Your task to perform on an android device: open a new tab in the chrome app Image 0: 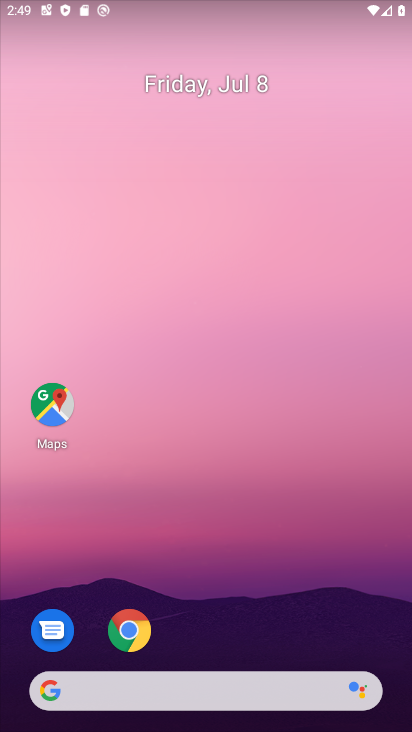
Step 0: drag from (281, 643) to (129, 69)
Your task to perform on an android device: open a new tab in the chrome app Image 1: 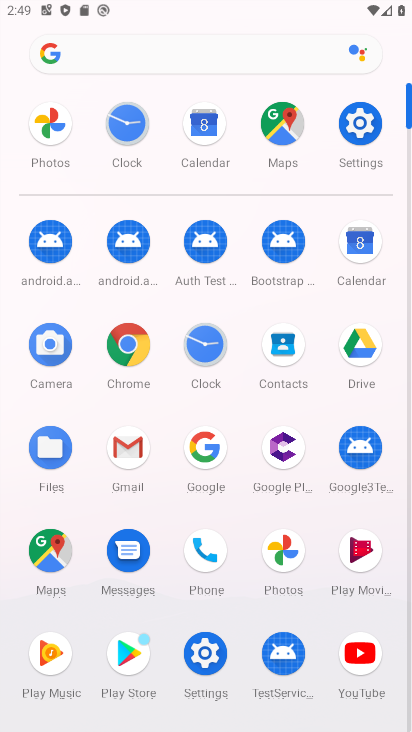
Step 1: click (126, 387)
Your task to perform on an android device: open a new tab in the chrome app Image 2: 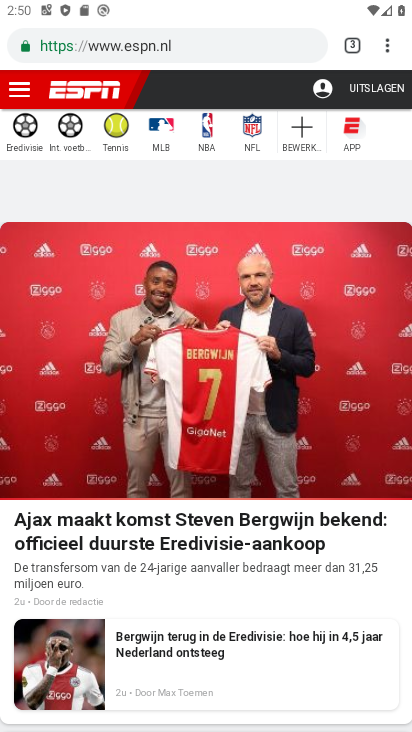
Step 2: click (382, 43)
Your task to perform on an android device: open a new tab in the chrome app Image 3: 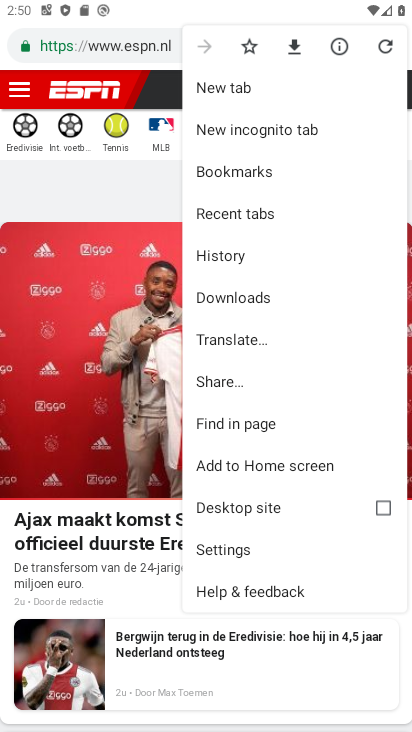
Step 3: click (239, 538)
Your task to perform on an android device: open a new tab in the chrome app Image 4: 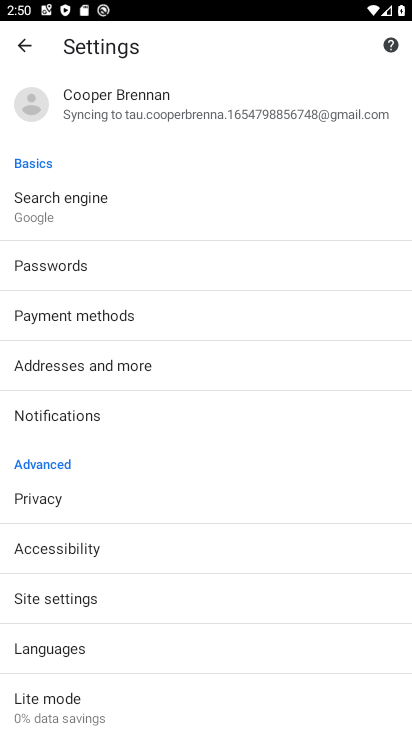
Step 4: drag from (185, 558) to (187, 320)
Your task to perform on an android device: open a new tab in the chrome app Image 5: 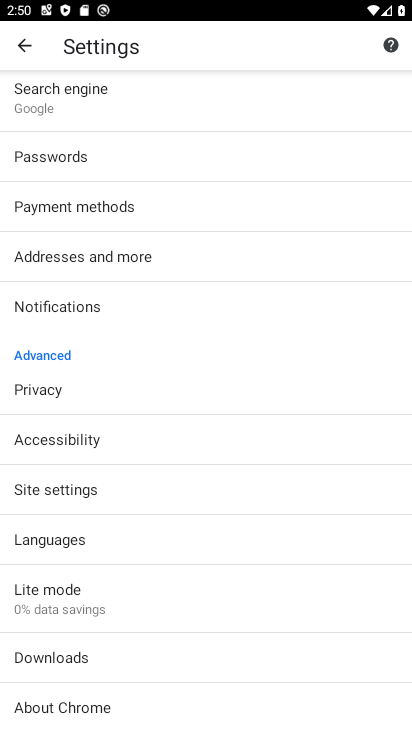
Step 5: drag from (195, 537) to (207, 633)
Your task to perform on an android device: open a new tab in the chrome app Image 6: 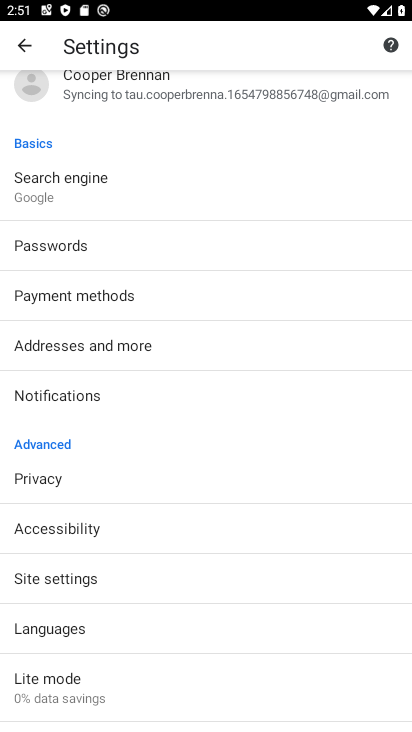
Step 6: drag from (212, 438) to (219, 528)
Your task to perform on an android device: open a new tab in the chrome app Image 7: 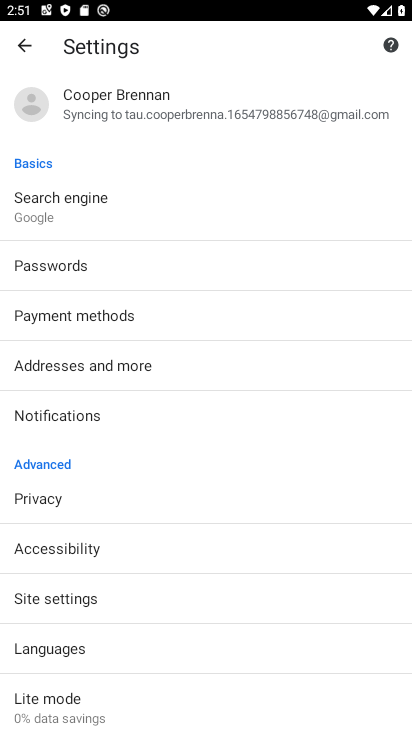
Step 7: click (31, 56)
Your task to perform on an android device: open a new tab in the chrome app Image 8: 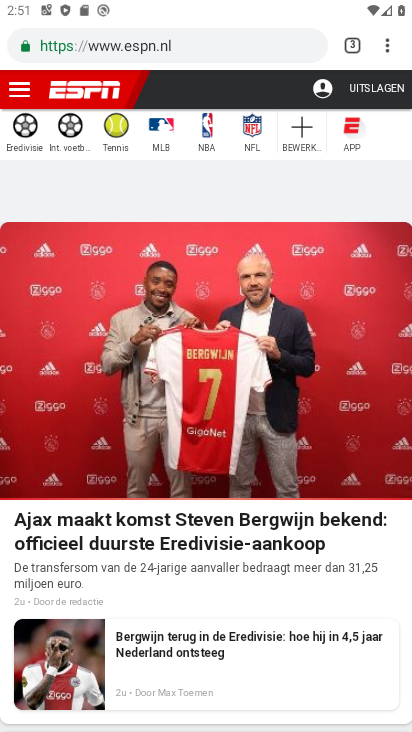
Step 8: click (346, 47)
Your task to perform on an android device: open a new tab in the chrome app Image 9: 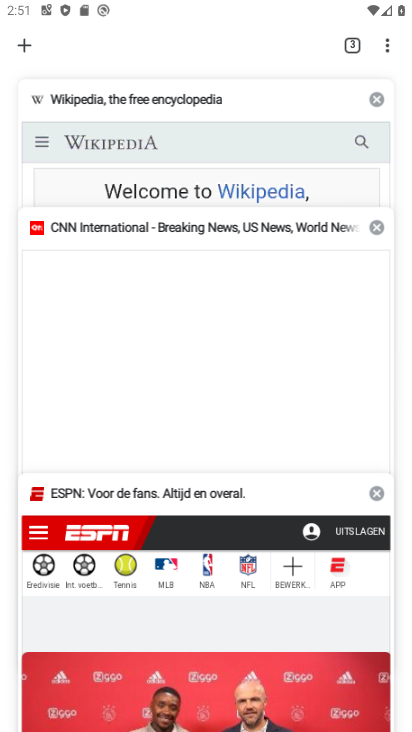
Step 9: click (29, 55)
Your task to perform on an android device: open a new tab in the chrome app Image 10: 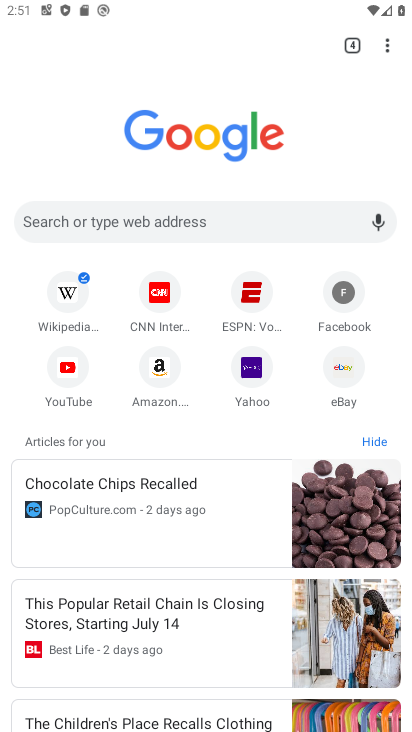
Step 10: task complete